Your task to perform on an android device: Clear the cart on newegg. Search for macbook on newegg, select the first entry, and add it to the cart. Image 0: 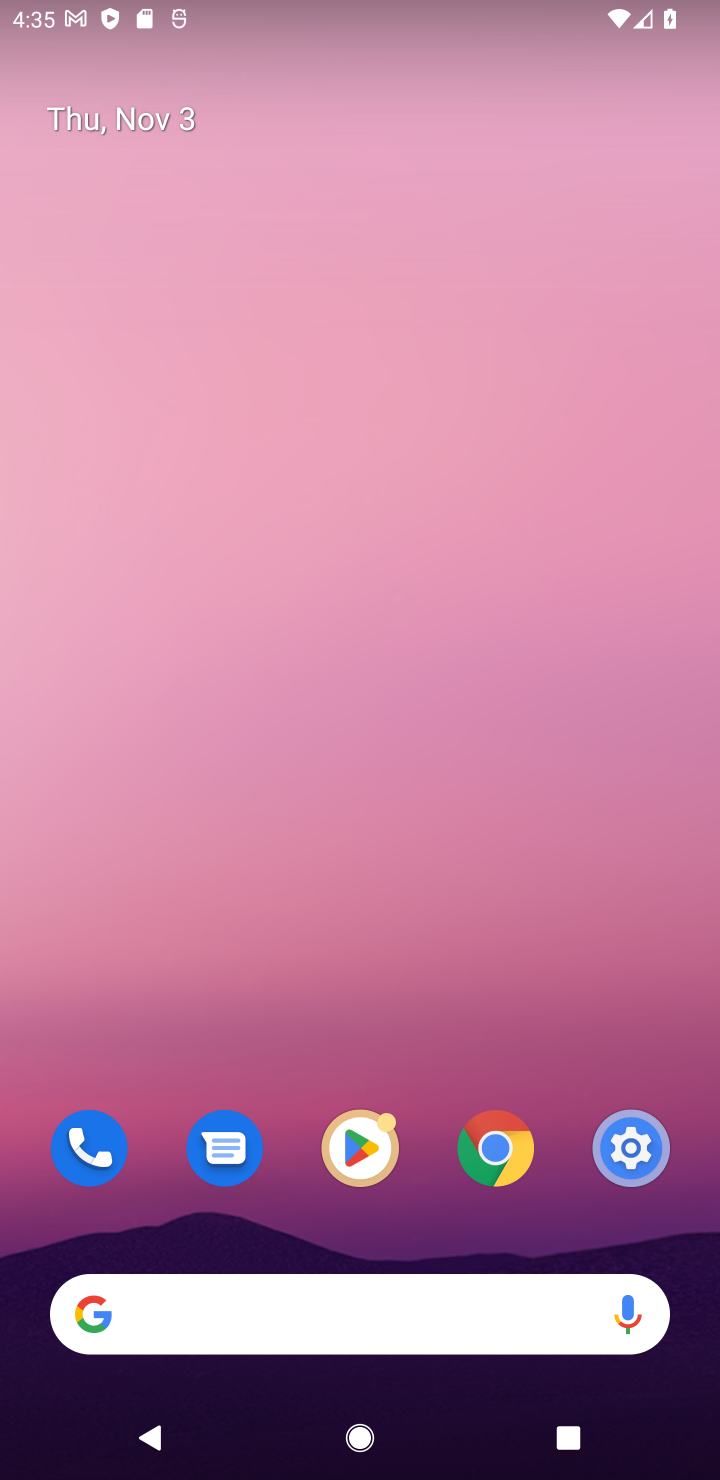
Step 0: click (370, 1316)
Your task to perform on an android device: Clear the cart on newegg. Search for macbook on newegg, select the first entry, and add it to the cart. Image 1: 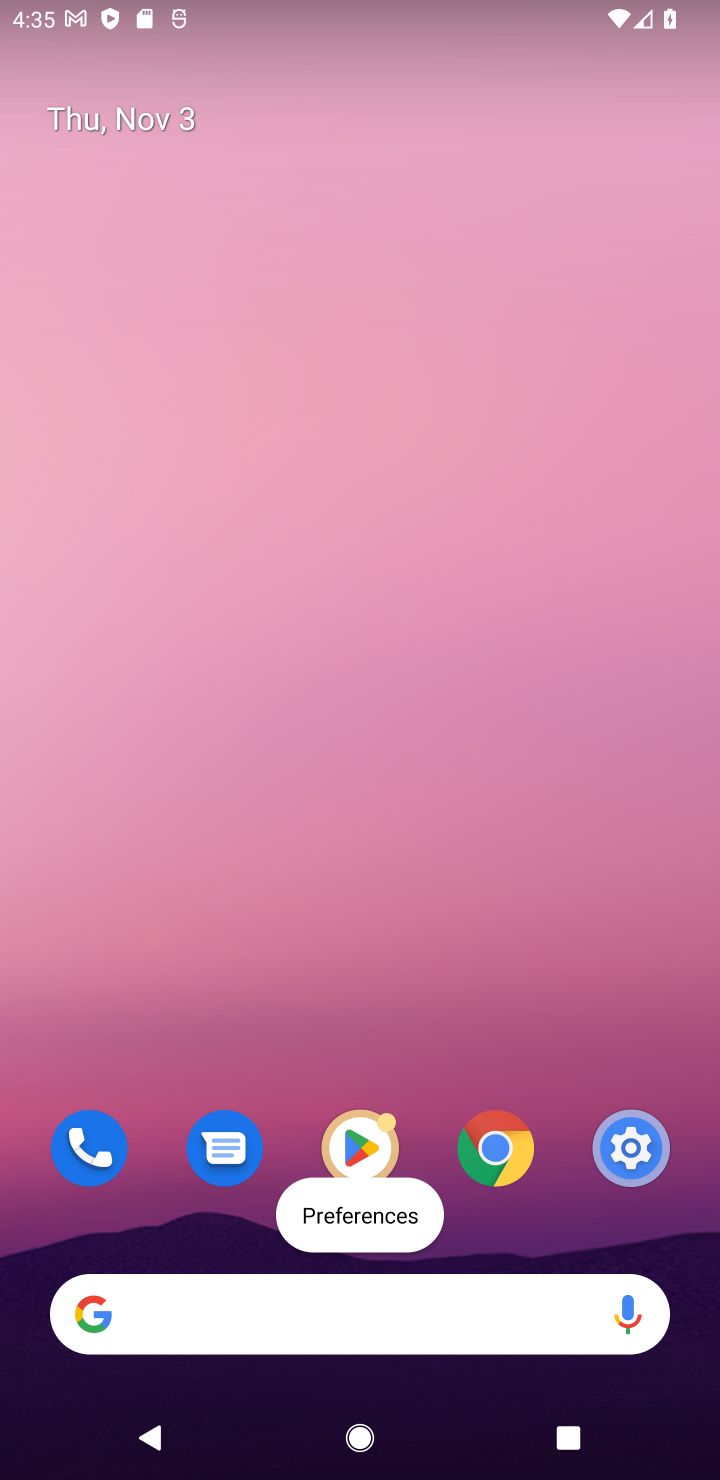
Step 1: click (381, 1306)
Your task to perform on an android device: Clear the cart on newegg. Search for macbook on newegg, select the first entry, and add it to the cart. Image 2: 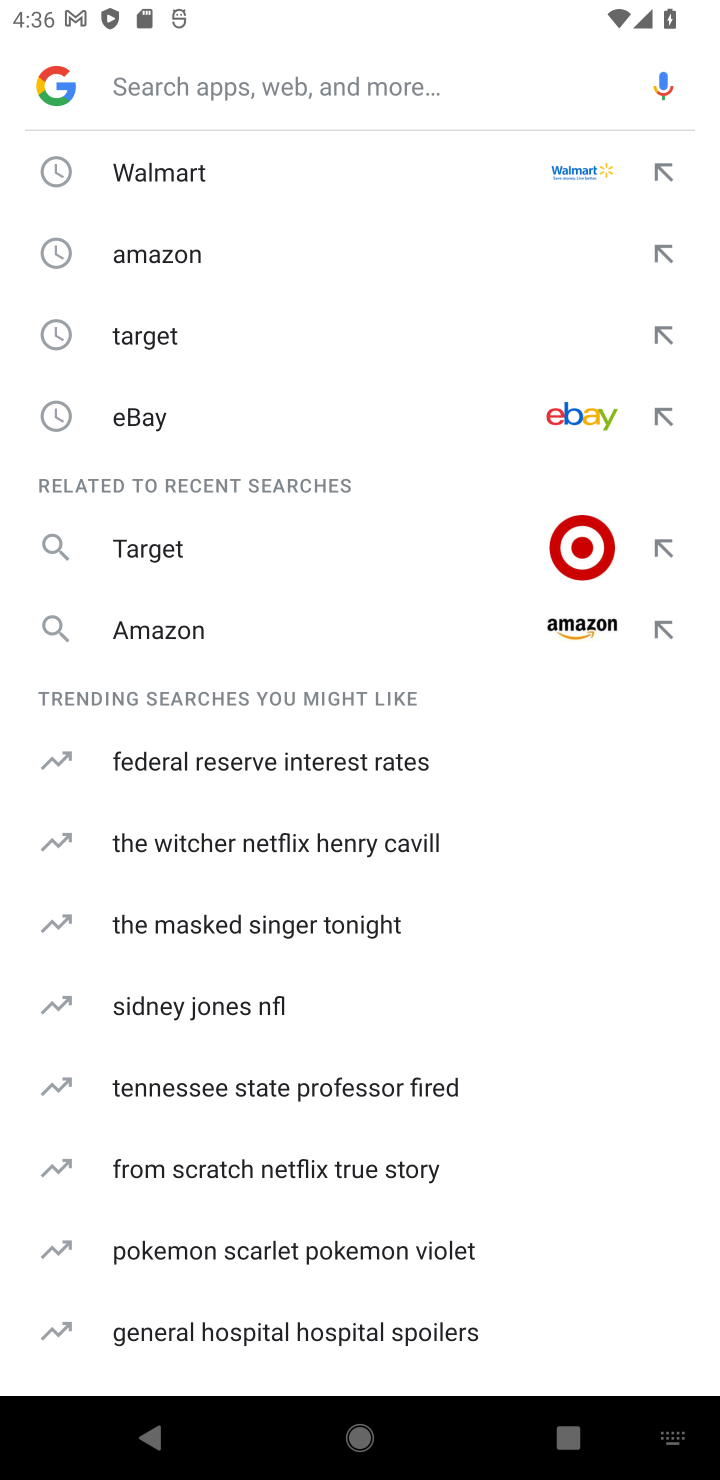
Step 2: type "newegg"
Your task to perform on an android device: Clear the cart on newegg. Search for macbook on newegg, select the first entry, and add it to the cart. Image 3: 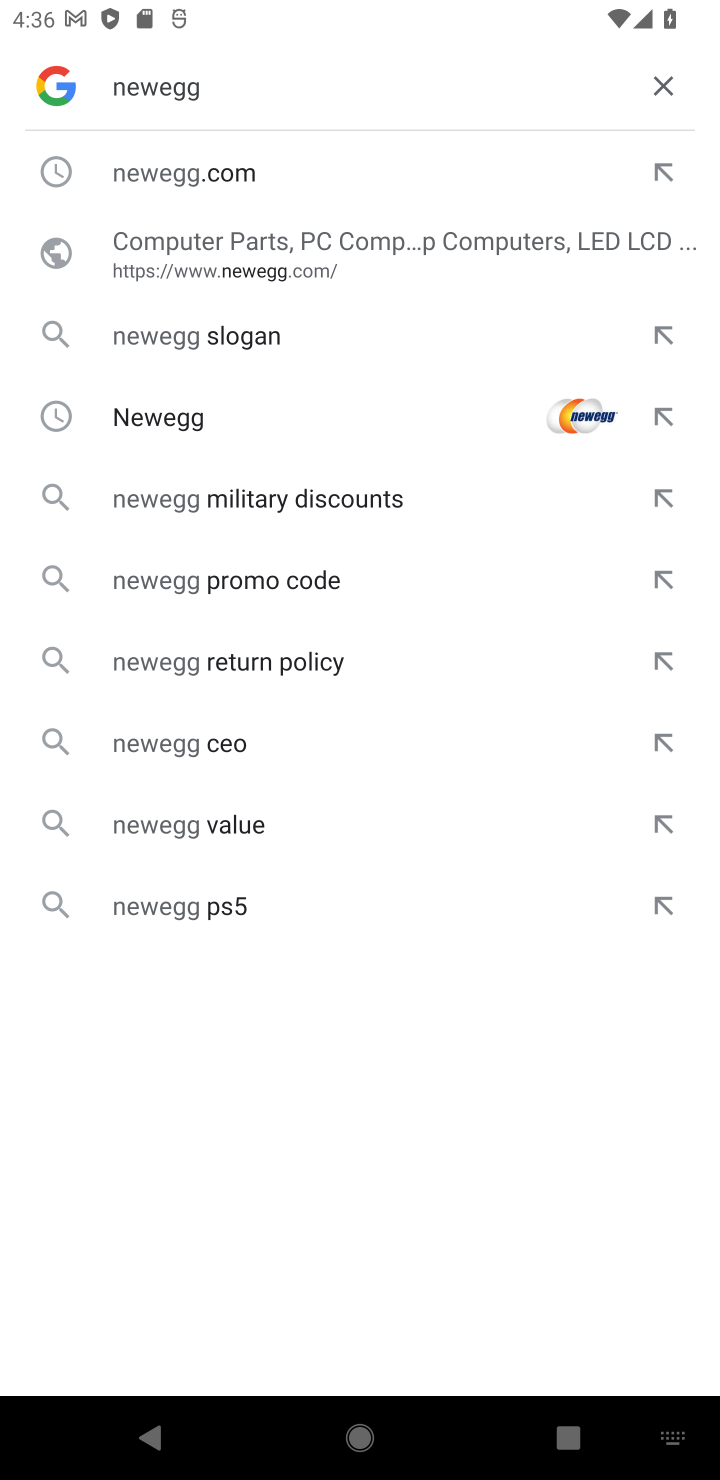
Step 3: click (259, 187)
Your task to perform on an android device: Clear the cart on newegg. Search for macbook on newegg, select the first entry, and add it to the cart. Image 4: 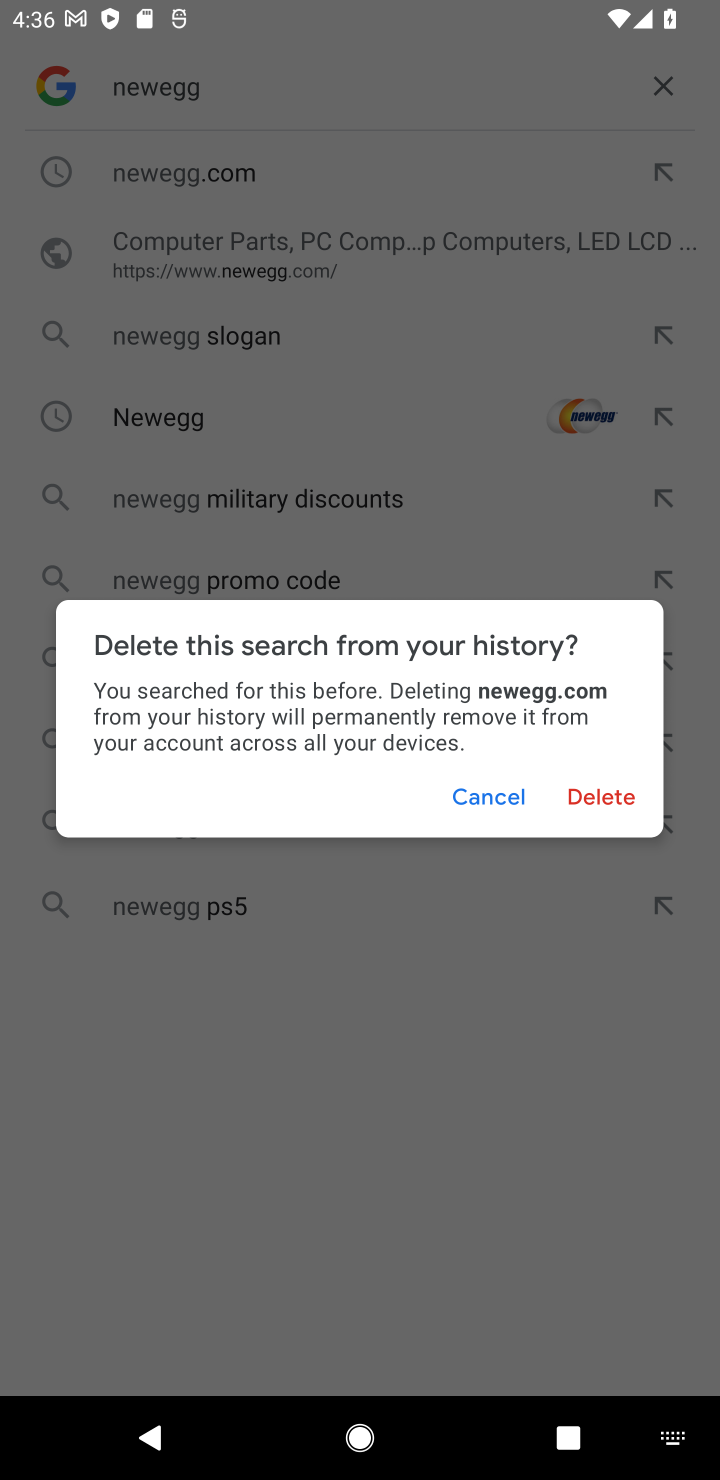
Step 4: click (488, 771)
Your task to perform on an android device: Clear the cart on newegg. Search for macbook on newegg, select the first entry, and add it to the cart. Image 5: 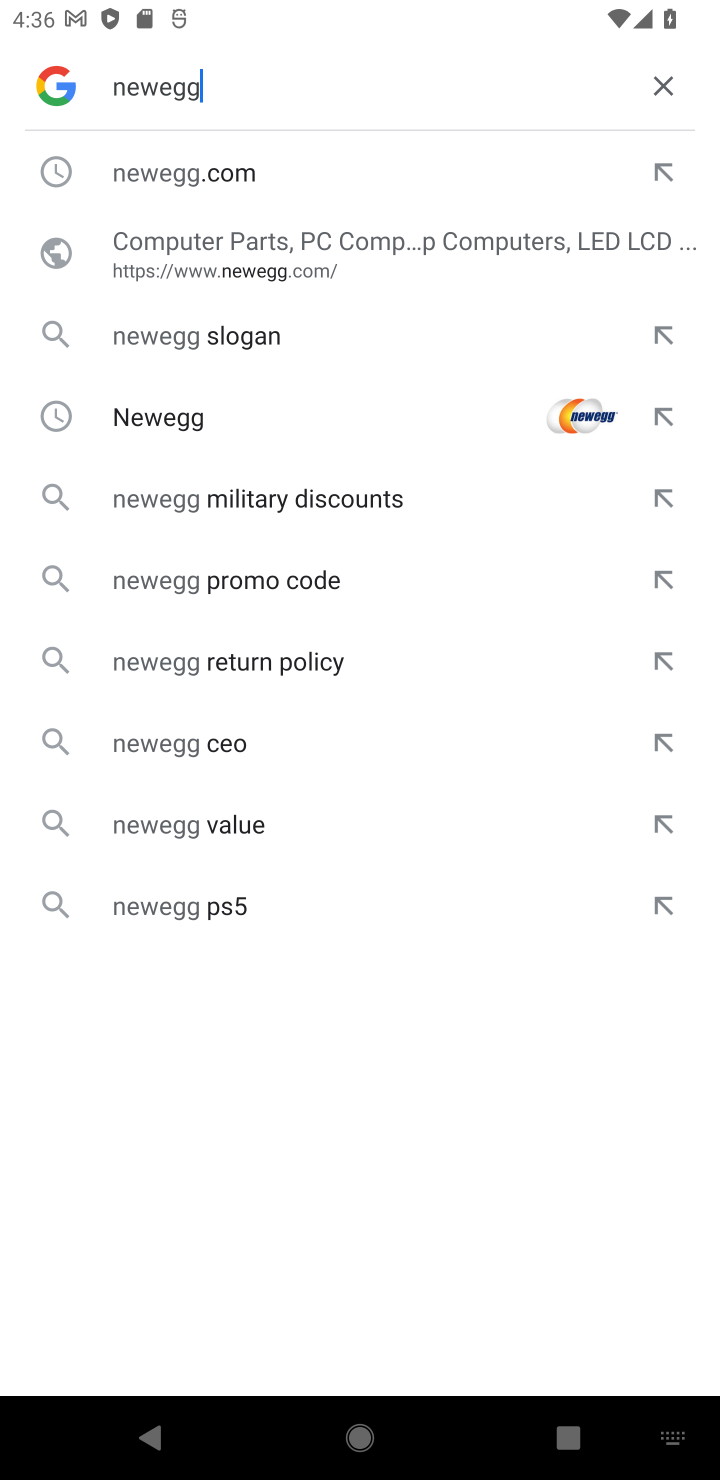
Step 5: click (143, 168)
Your task to perform on an android device: Clear the cart on newegg. Search for macbook on newegg, select the first entry, and add it to the cart. Image 6: 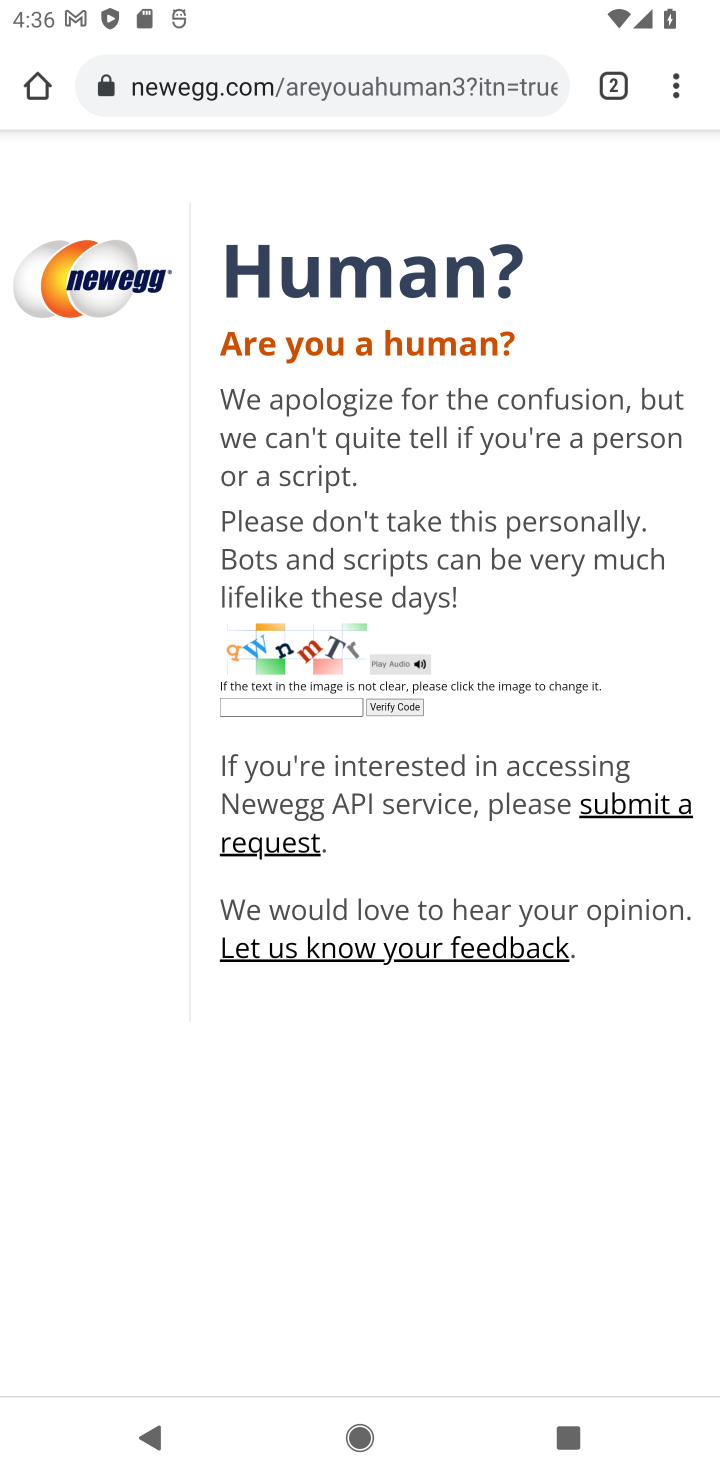
Step 6: task complete